Your task to perform on an android device: create a new album in the google photos Image 0: 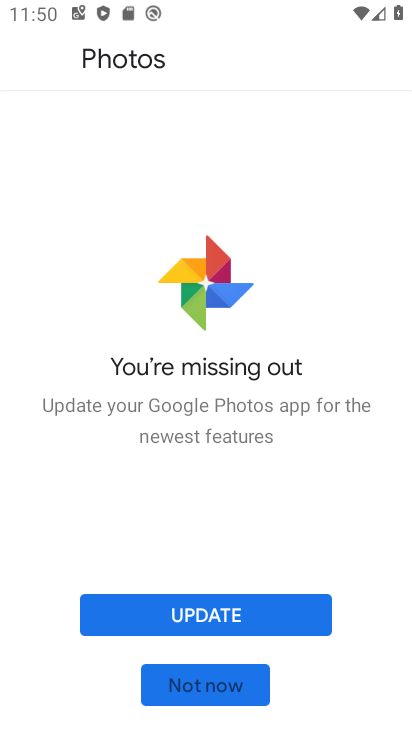
Step 0: click (226, 684)
Your task to perform on an android device: create a new album in the google photos Image 1: 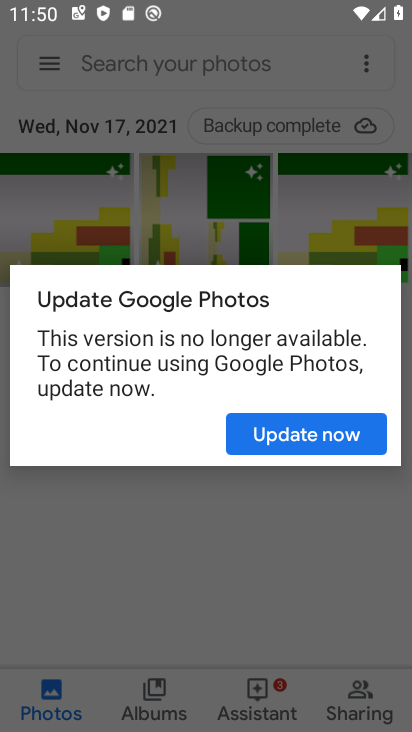
Step 1: click (303, 417)
Your task to perform on an android device: create a new album in the google photos Image 2: 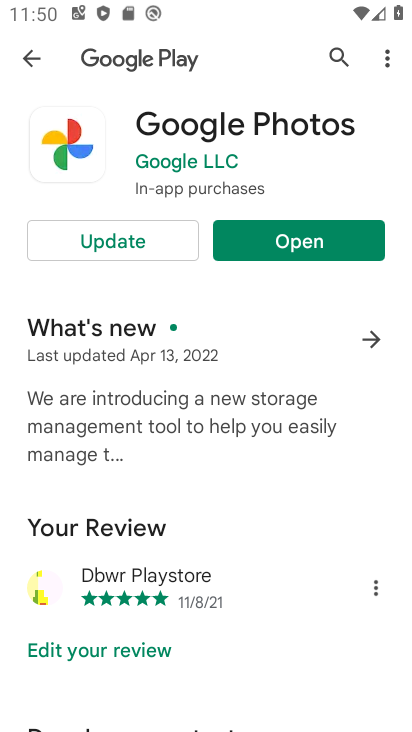
Step 2: click (295, 251)
Your task to perform on an android device: create a new album in the google photos Image 3: 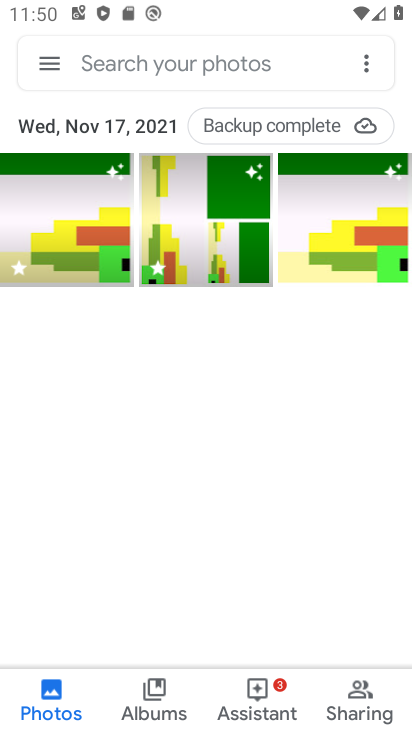
Step 3: click (39, 216)
Your task to perform on an android device: create a new album in the google photos Image 4: 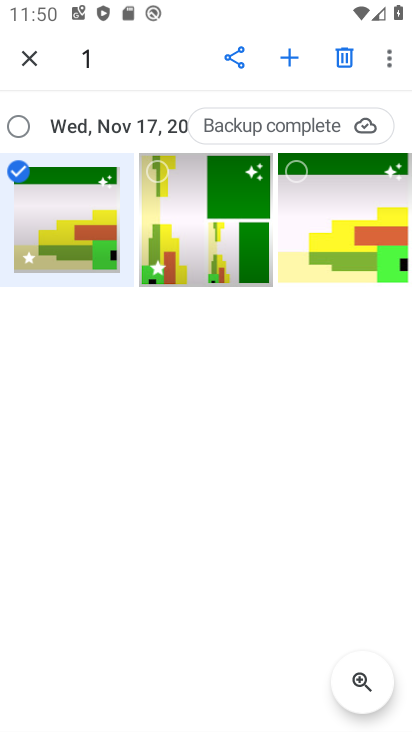
Step 4: click (196, 199)
Your task to perform on an android device: create a new album in the google photos Image 5: 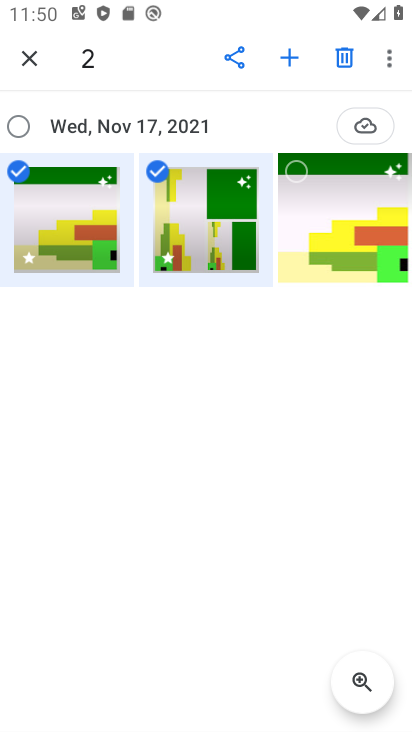
Step 5: click (287, 65)
Your task to perform on an android device: create a new album in the google photos Image 6: 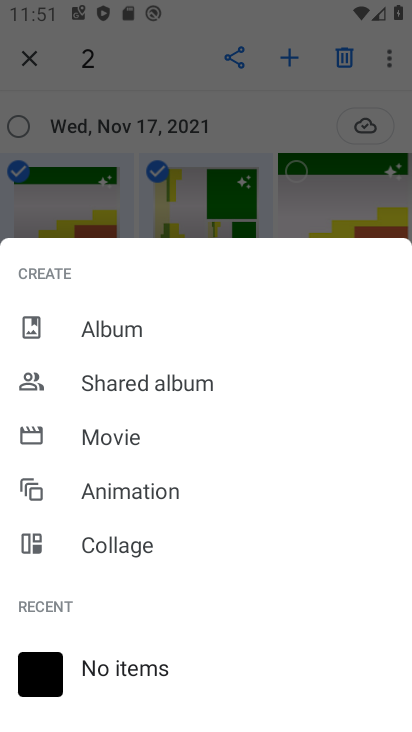
Step 6: click (159, 327)
Your task to perform on an android device: create a new album in the google photos Image 7: 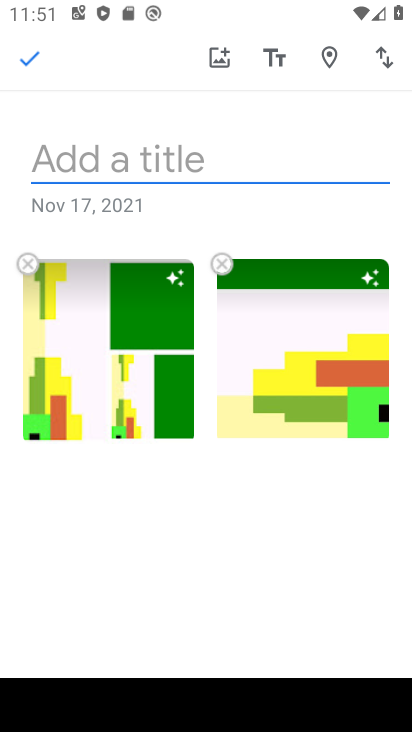
Step 7: type "gorg"
Your task to perform on an android device: create a new album in the google photos Image 8: 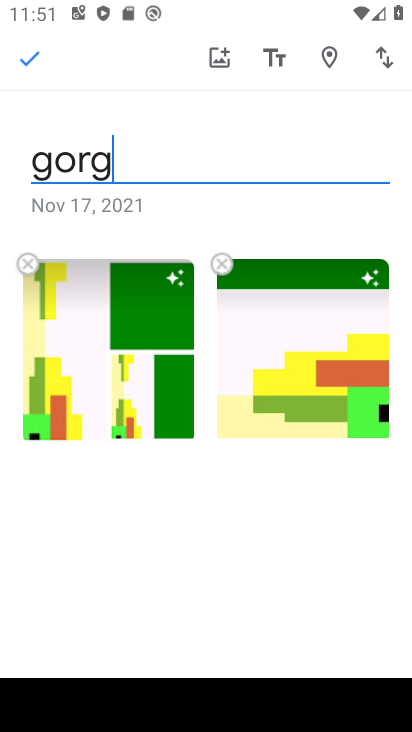
Step 8: click (34, 68)
Your task to perform on an android device: create a new album in the google photos Image 9: 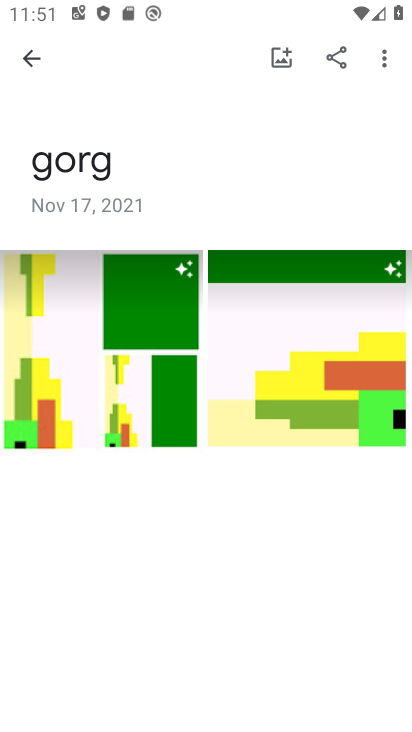
Step 9: task complete